Your task to perform on an android device: Add macbook pro 13 inch to the cart on newegg, then select checkout. Image 0: 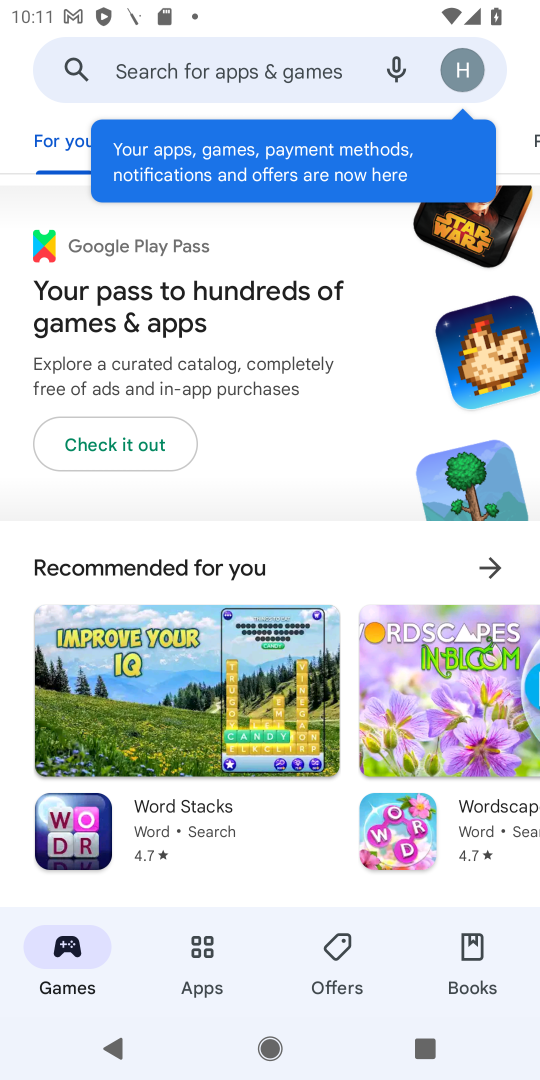
Step 0: press home button
Your task to perform on an android device: Add macbook pro 13 inch to the cart on newegg, then select checkout. Image 1: 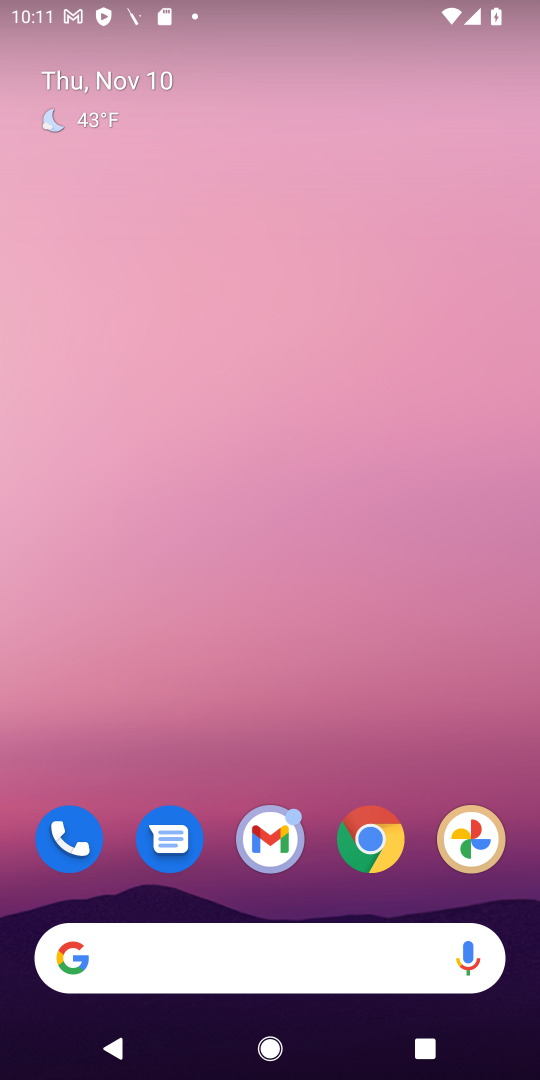
Step 1: click (369, 850)
Your task to perform on an android device: Add macbook pro 13 inch to the cart on newegg, then select checkout. Image 2: 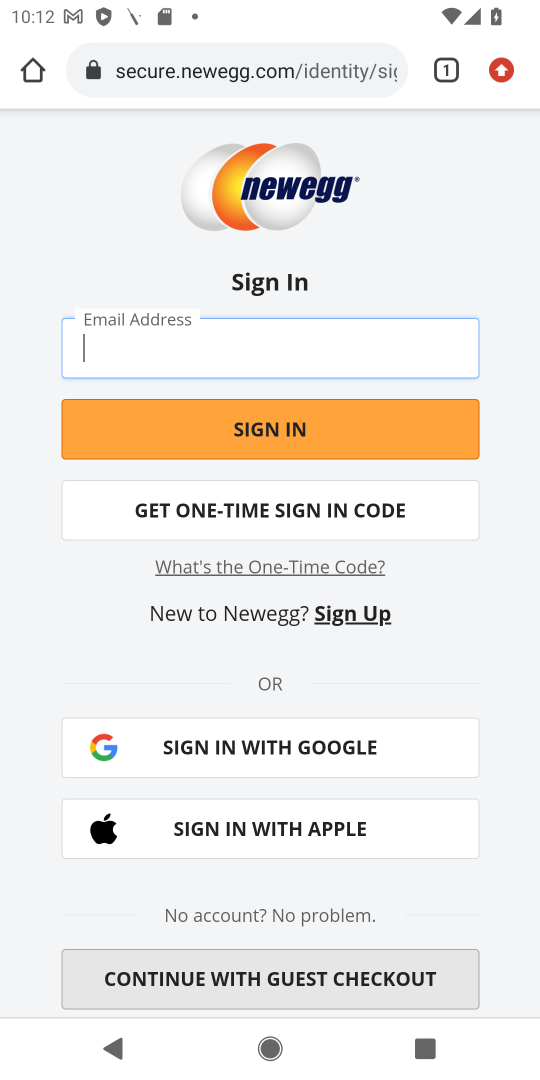
Step 2: task complete